Your task to perform on an android device: install app "Pandora - Music & Podcasts" Image 0: 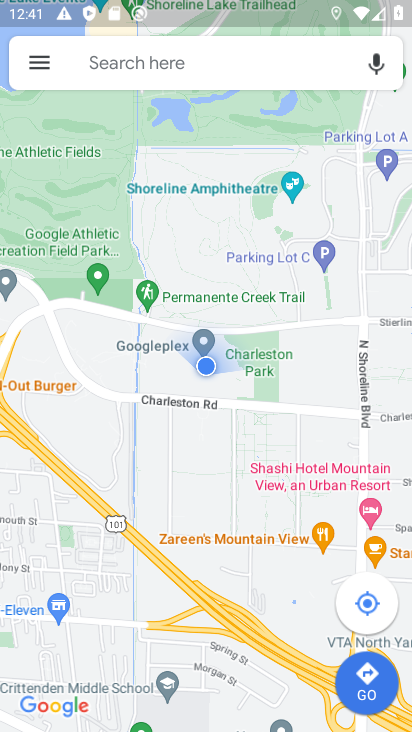
Step 0: press home button
Your task to perform on an android device: install app "Pandora - Music & Podcasts" Image 1: 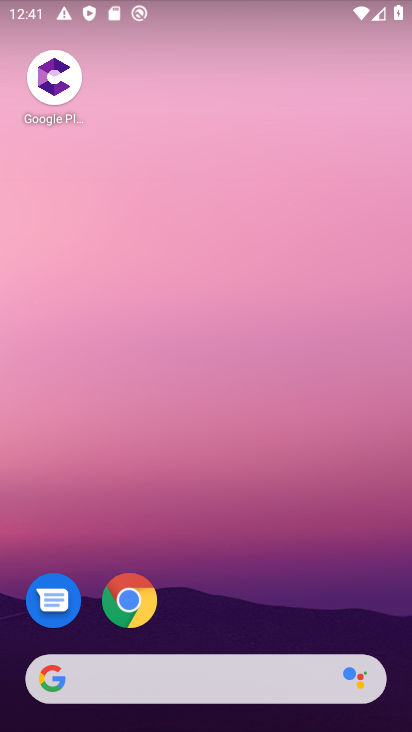
Step 1: drag from (247, 649) to (245, 2)
Your task to perform on an android device: install app "Pandora - Music & Podcasts" Image 2: 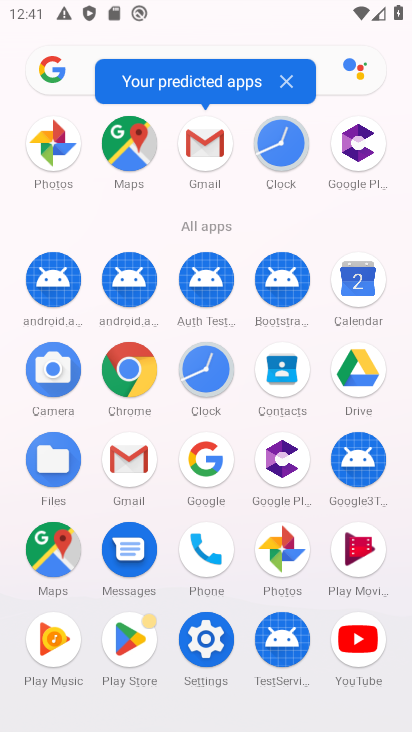
Step 2: click (131, 644)
Your task to perform on an android device: install app "Pandora - Music & Podcasts" Image 3: 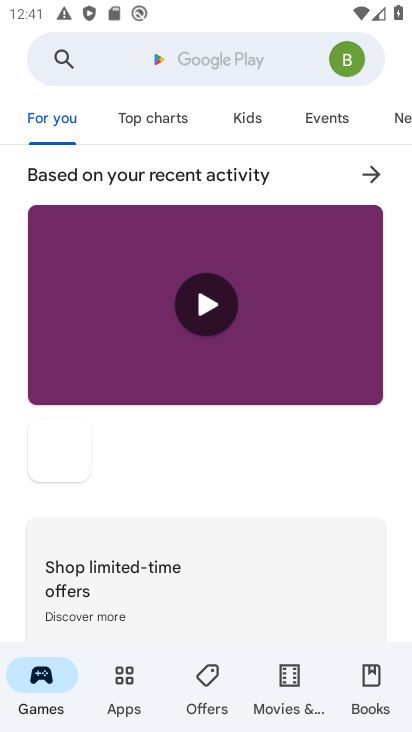
Step 3: click (219, 62)
Your task to perform on an android device: install app "Pandora - Music & Podcasts" Image 4: 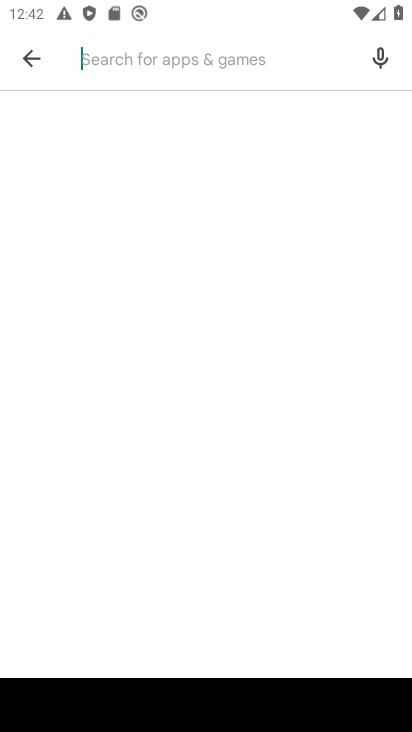
Step 4: type "Pandora - Music & Podcasts"
Your task to perform on an android device: install app "Pandora - Music & Podcasts" Image 5: 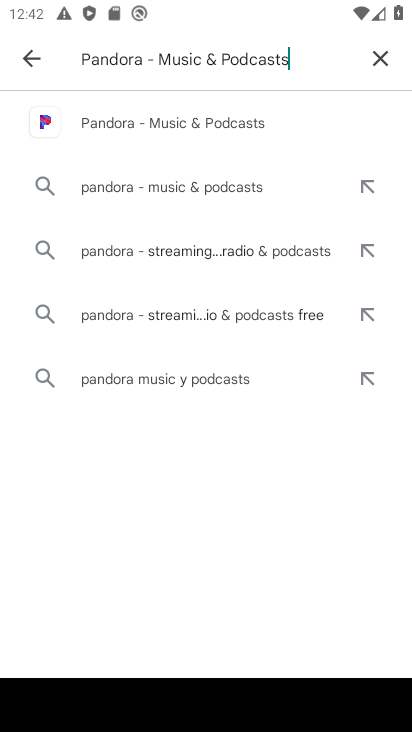
Step 5: click (153, 126)
Your task to perform on an android device: install app "Pandora - Music & Podcasts" Image 6: 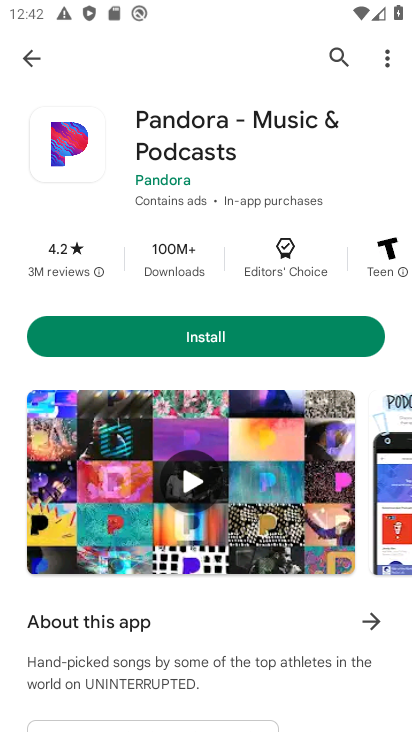
Step 6: click (202, 333)
Your task to perform on an android device: install app "Pandora - Music & Podcasts" Image 7: 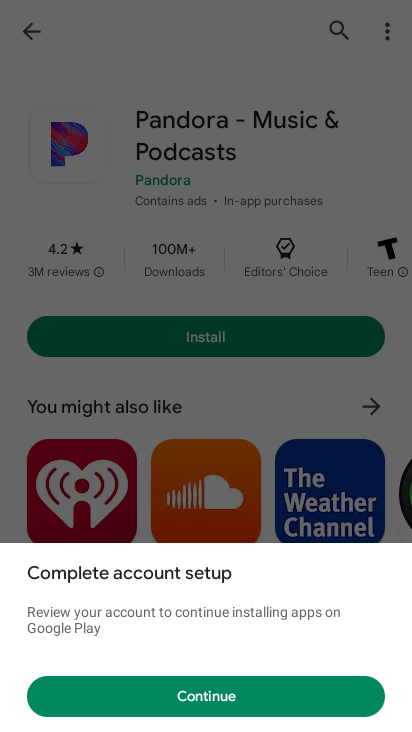
Step 7: click (231, 707)
Your task to perform on an android device: install app "Pandora - Music & Podcasts" Image 8: 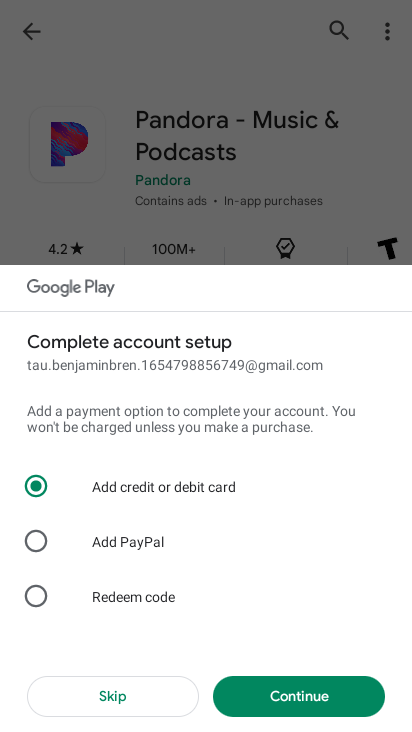
Step 8: click (103, 692)
Your task to perform on an android device: install app "Pandora - Music & Podcasts" Image 9: 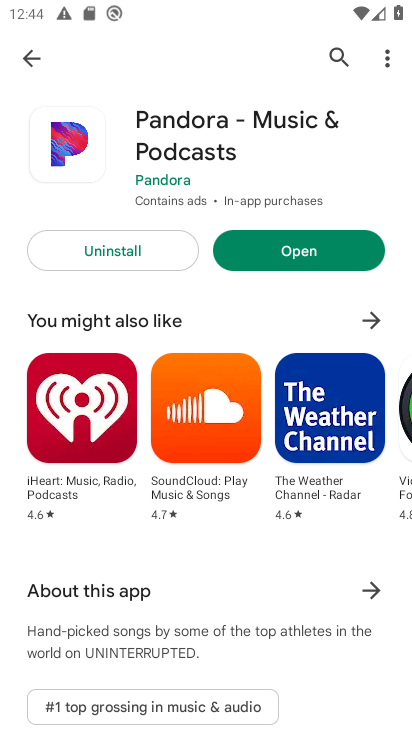
Step 9: click (331, 251)
Your task to perform on an android device: install app "Pandora - Music & Podcasts" Image 10: 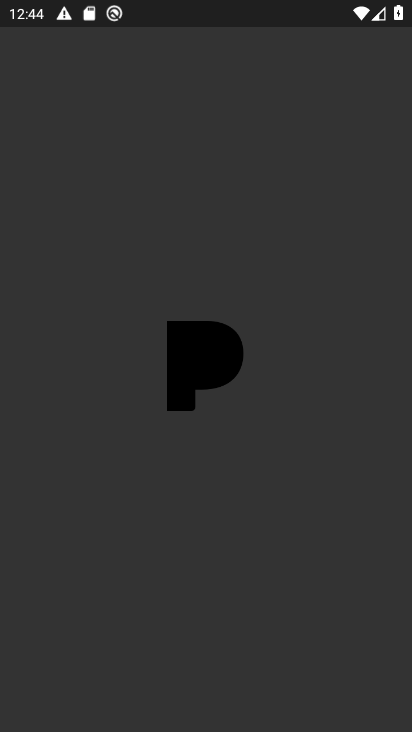
Step 10: task complete